Your task to perform on an android device: open chrome and create a bookmark for the current page Image 0: 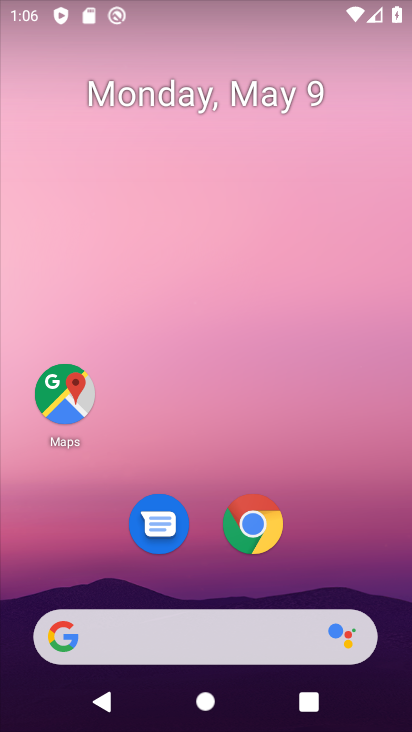
Step 0: click (239, 522)
Your task to perform on an android device: open chrome and create a bookmark for the current page Image 1: 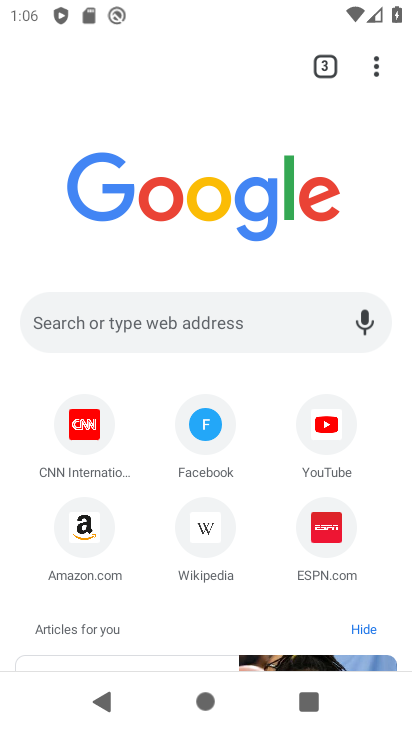
Step 1: click (375, 62)
Your task to perform on an android device: open chrome and create a bookmark for the current page Image 2: 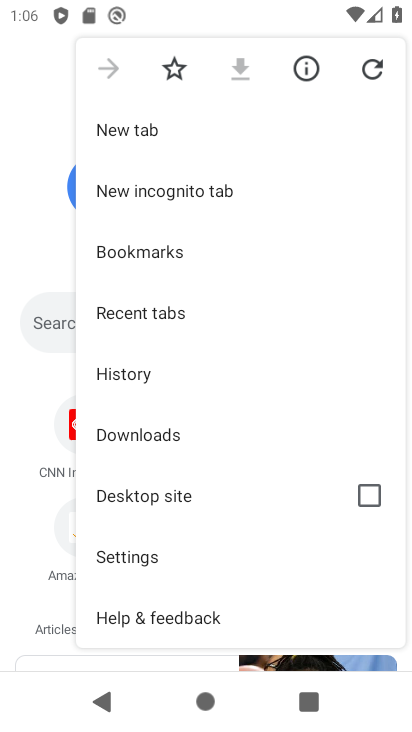
Step 2: click (177, 64)
Your task to perform on an android device: open chrome and create a bookmark for the current page Image 3: 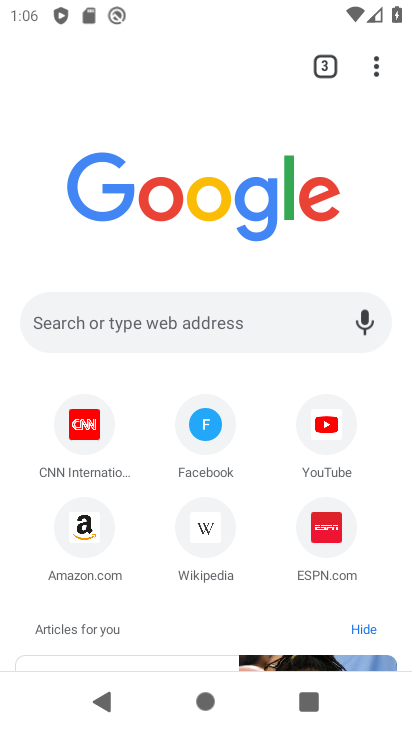
Step 3: task complete